Your task to perform on an android device: What's the weather? Image 0: 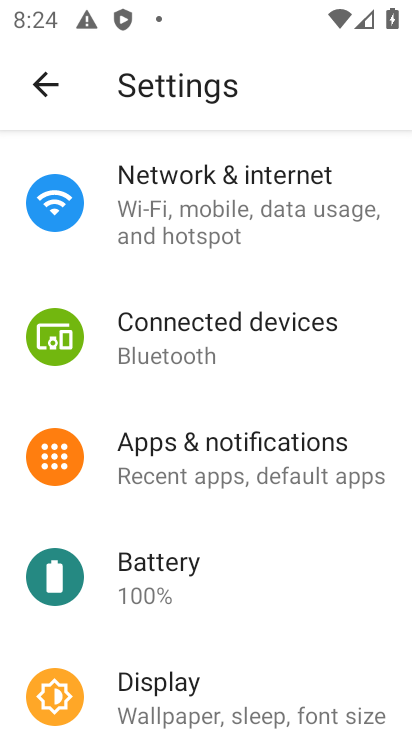
Step 0: press home button
Your task to perform on an android device: What's the weather? Image 1: 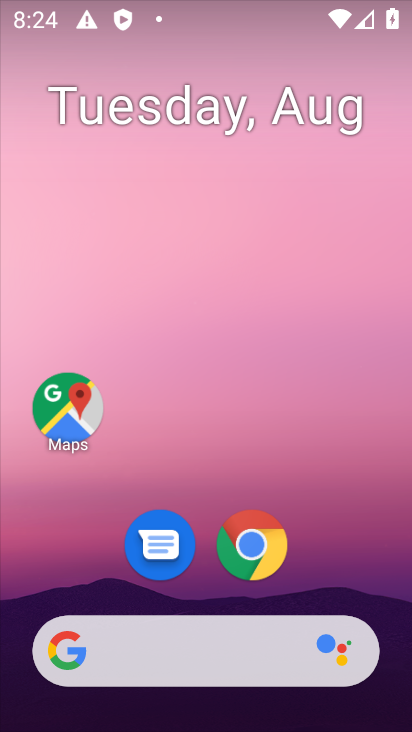
Step 1: click (198, 647)
Your task to perform on an android device: What's the weather? Image 2: 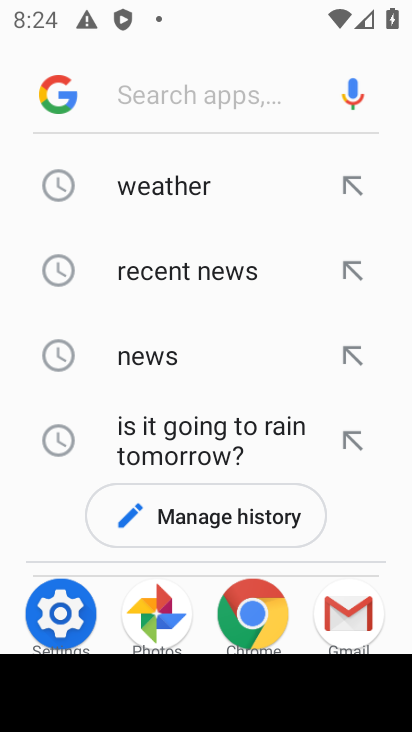
Step 2: click (176, 180)
Your task to perform on an android device: What's the weather? Image 3: 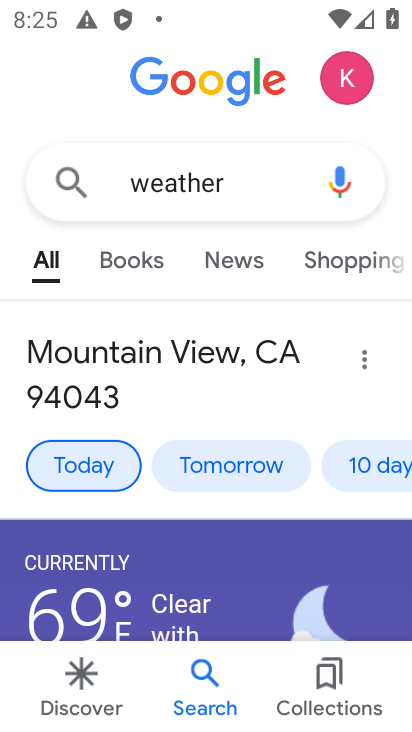
Step 3: task complete